Your task to perform on an android device: Go to Google maps Image 0: 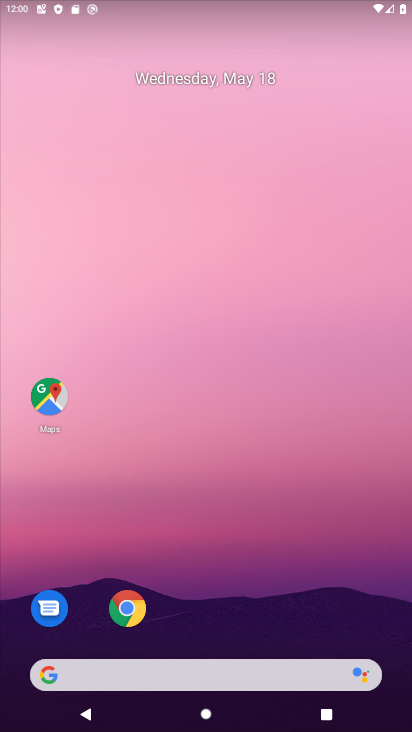
Step 0: click (43, 384)
Your task to perform on an android device: Go to Google maps Image 1: 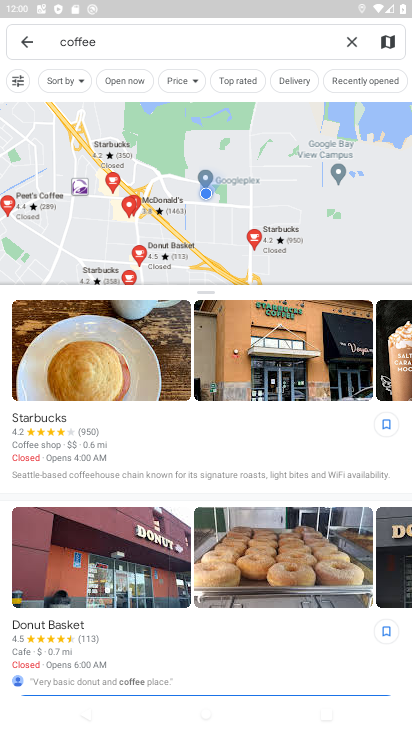
Step 1: task complete